Your task to perform on an android device: turn on priority inbox in the gmail app Image 0: 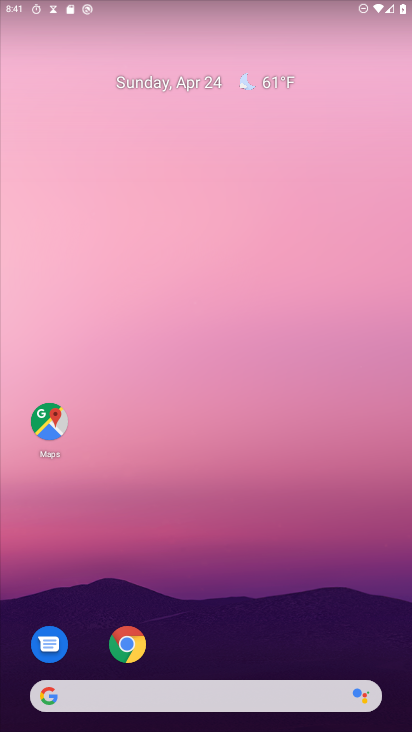
Step 0: drag from (180, 666) to (192, 153)
Your task to perform on an android device: turn on priority inbox in the gmail app Image 1: 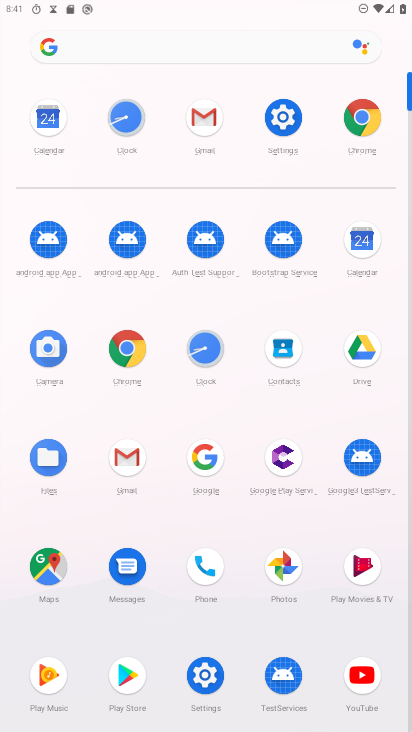
Step 1: click (124, 451)
Your task to perform on an android device: turn on priority inbox in the gmail app Image 2: 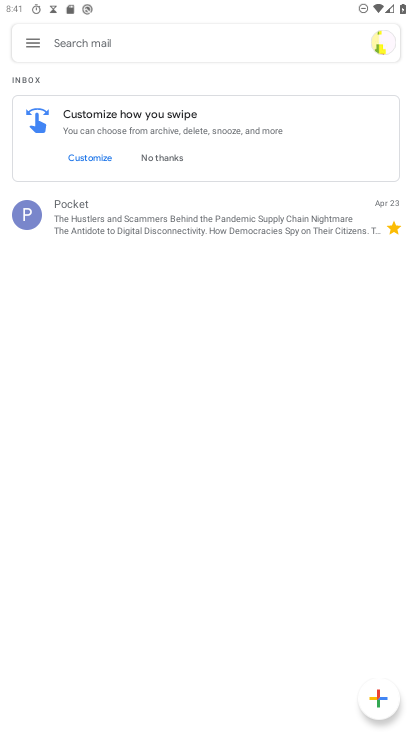
Step 2: press home button
Your task to perform on an android device: turn on priority inbox in the gmail app Image 3: 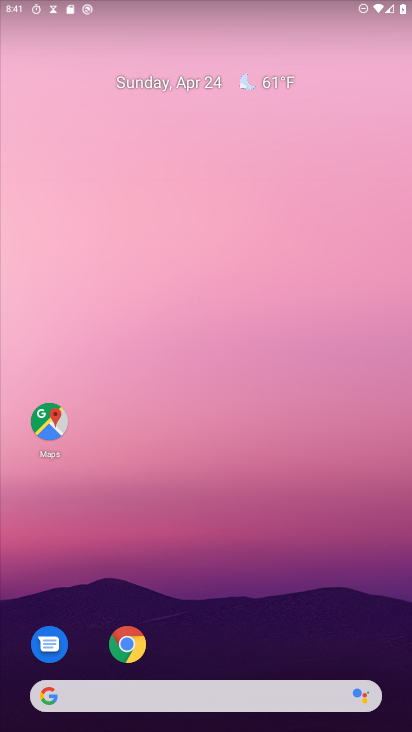
Step 3: drag from (188, 693) to (236, 39)
Your task to perform on an android device: turn on priority inbox in the gmail app Image 4: 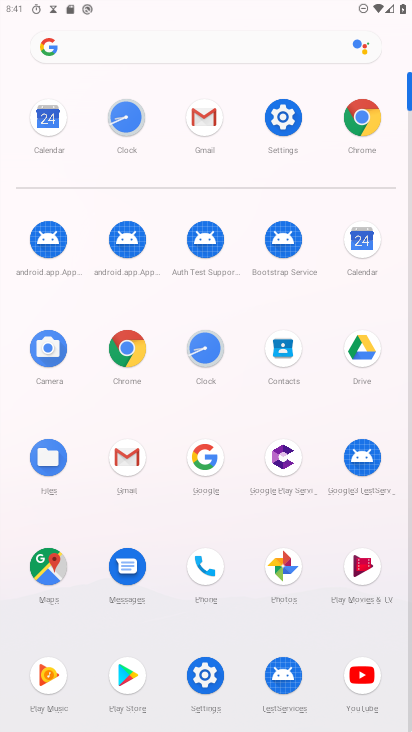
Step 4: click (118, 451)
Your task to perform on an android device: turn on priority inbox in the gmail app Image 5: 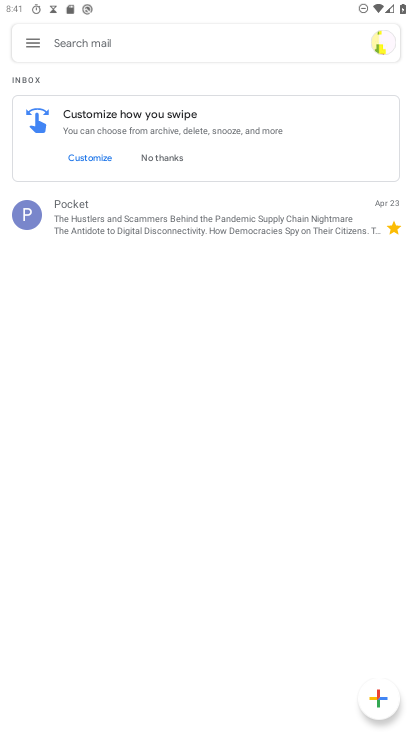
Step 5: click (26, 42)
Your task to perform on an android device: turn on priority inbox in the gmail app Image 6: 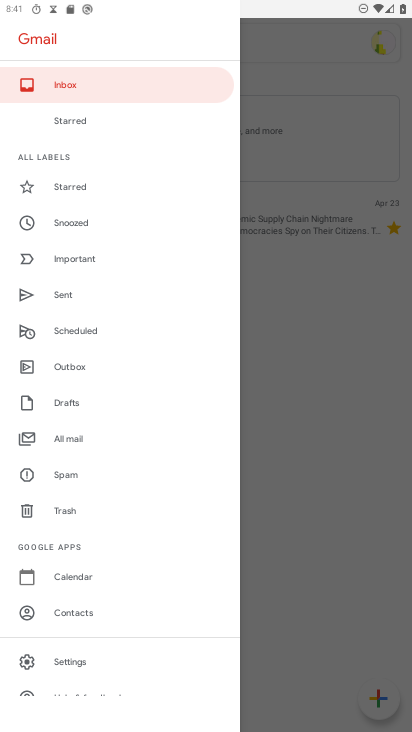
Step 6: click (83, 662)
Your task to perform on an android device: turn on priority inbox in the gmail app Image 7: 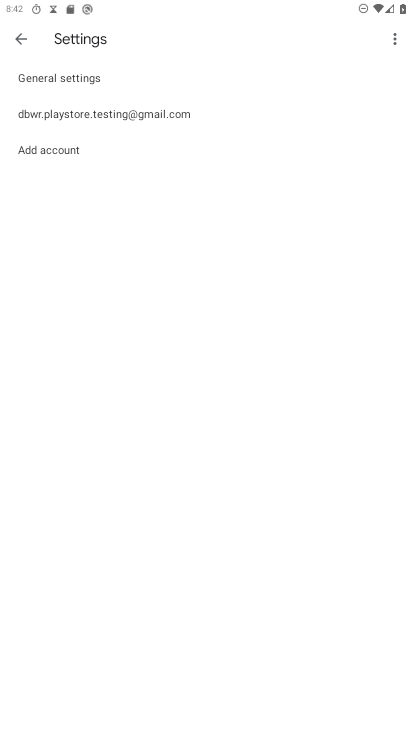
Step 7: click (117, 105)
Your task to perform on an android device: turn on priority inbox in the gmail app Image 8: 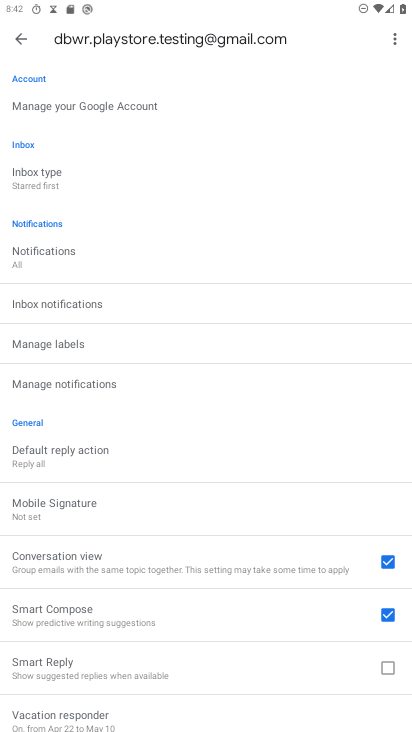
Step 8: click (58, 175)
Your task to perform on an android device: turn on priority inbox in the gmail app Image 9: 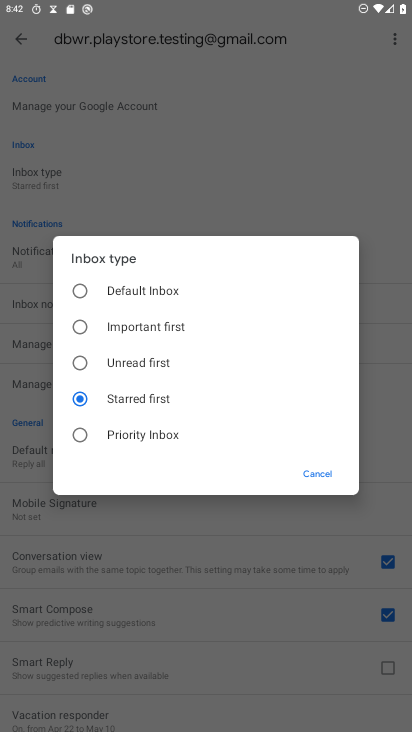
Step 9: click (107, 435)
Your task to perform on an android device: turn on priority inbox in the gmail app Image 10: 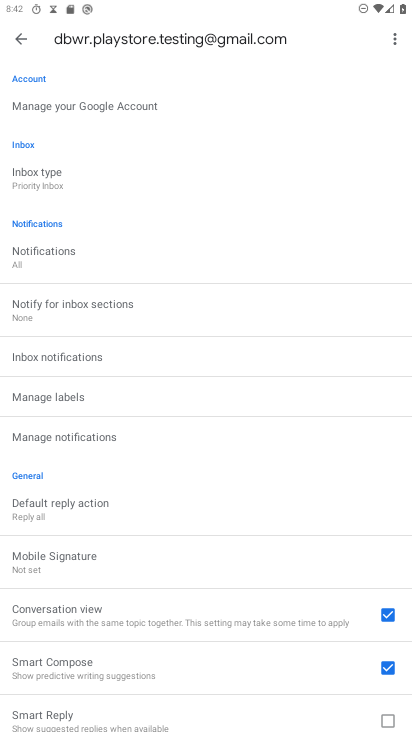
Step 10: task complete